Your task to perform on an android device: turn on priority inbox in the gmail app Image 0: 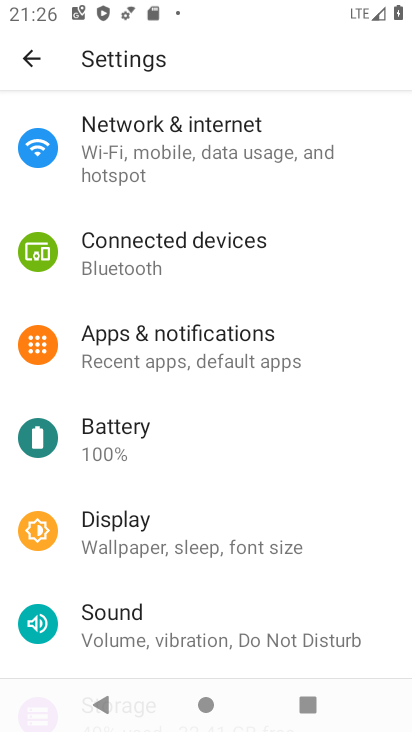
Step 0: press home button
Your task to perform on an android device: turn on priority inbox in the gmail app Image 1: 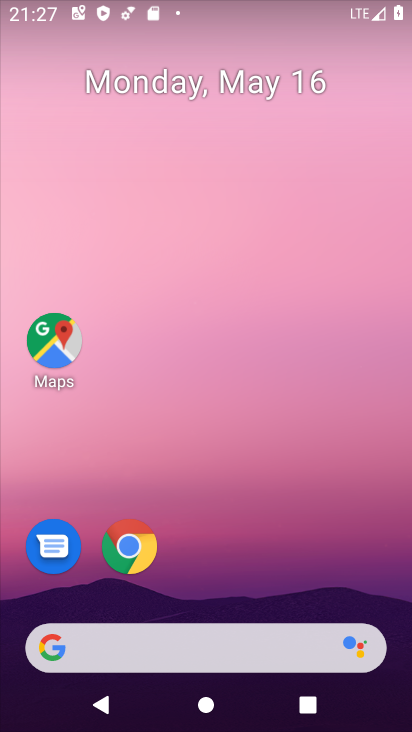
Step 1: drag from (251, 669) to (190, 8)
Your task to perform on an android device: turn on priority inbox in the gmail app Image 2: 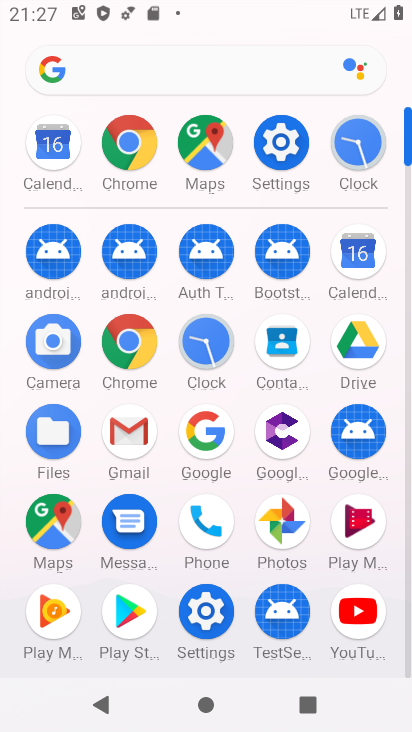
Step 2: click (140, 438)
Your task to perform on an android device: turn on priority inbox in the gmail app Image 3: 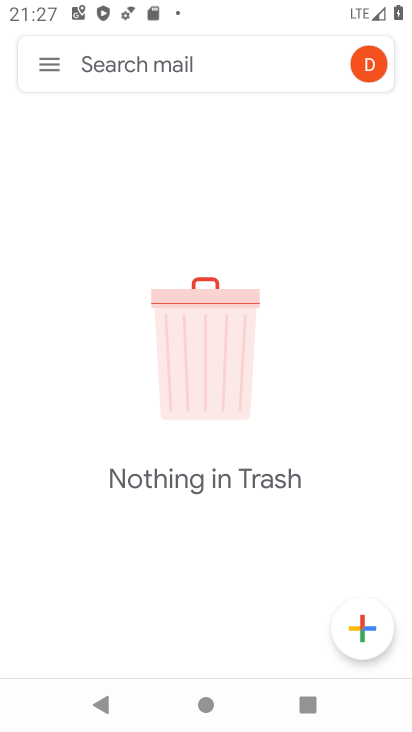
Step 3: click (54, 60)
Your task to perform on an android device: turn on priority inbox in the gmail app Image 4: 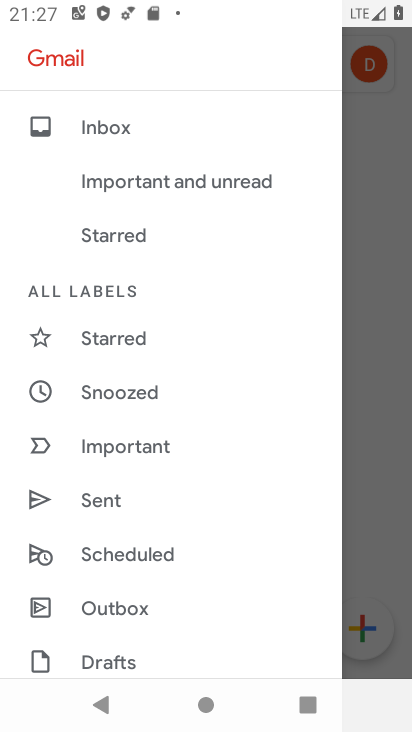
Step 4: drag from (165, 548) to (238, 408)
Your task to perform on an android device: turn on priority inbox in the gmail app Image 5: 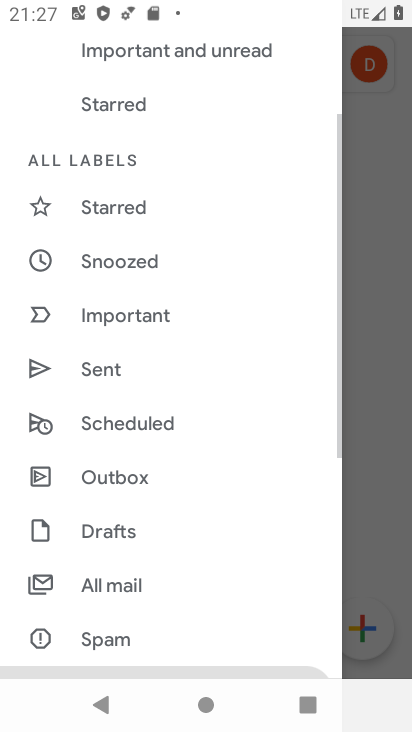
Step 5: drag from (181, 551) to (227, 438)
Your task to perform on an android device: turn on priority inbox in the gmail app Image 6: 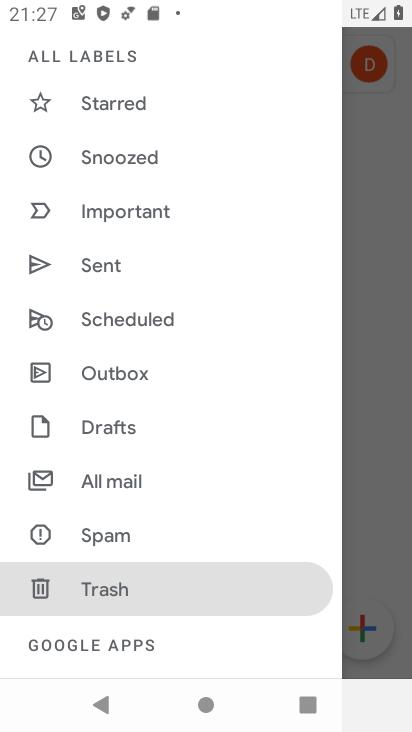
Step 6: drag from (177, 465) to (234, 321)
Your task to perform on an android device: turn on priority inbox in the gmail app Image 7: 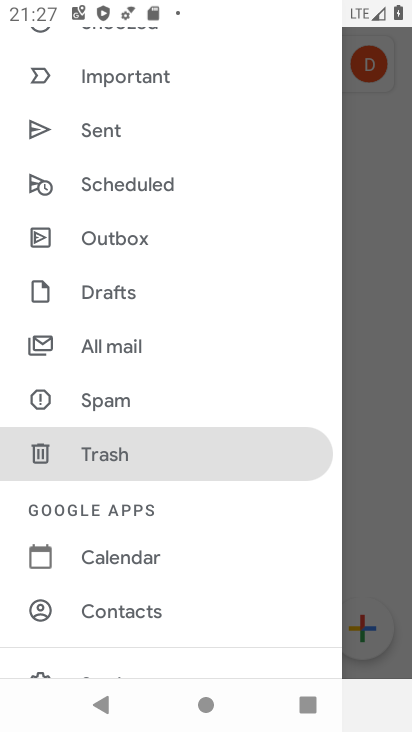
Step 7: drag from (127, 533) to (203, 365)
Your task to perform on an android device: turn on priority inbox in the gmail app Image 8: 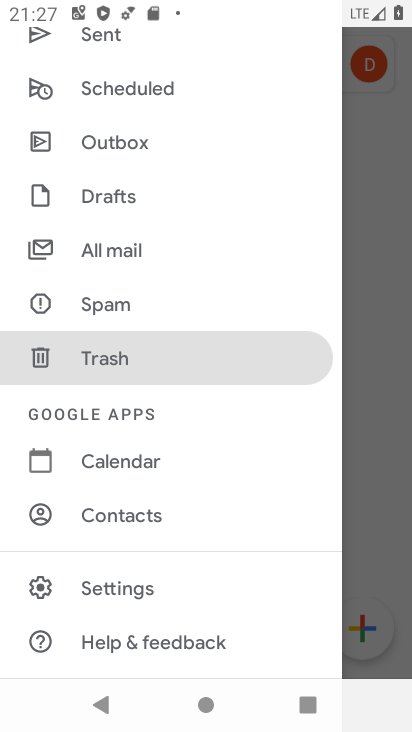
Step 8: click (161, 596)
Your task to perform on an android device: turn on priority inbox in the gmail app Image 9: 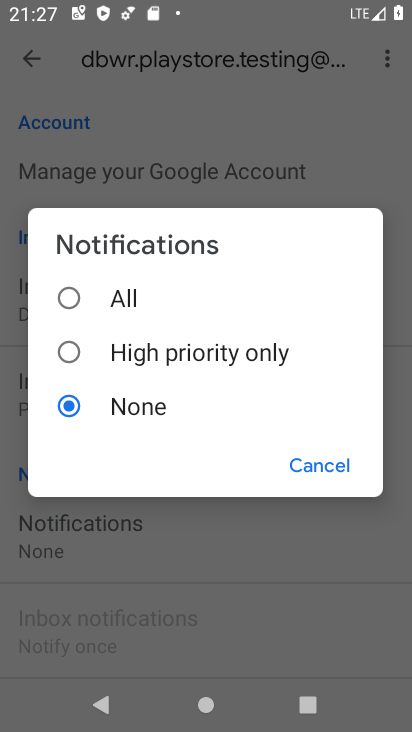
Step 9: click (327, 477)
Your task to perform on an android device: turn on priority inbox in the gmail app Image 10: 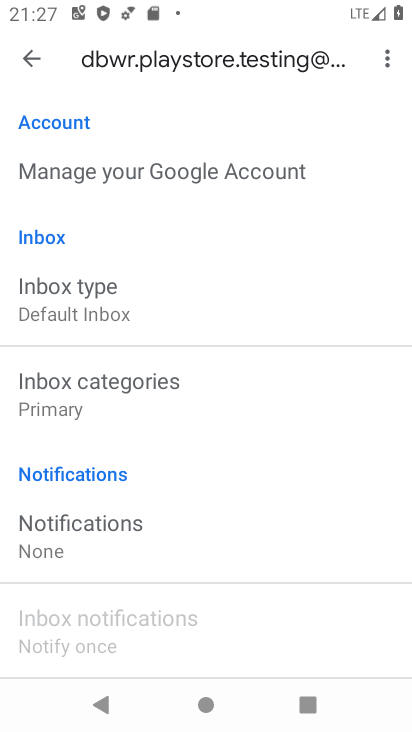
Step 10: click (117, 288)
Your task to perform on an android device: turn on priority inbox in the gmail app Image 11: 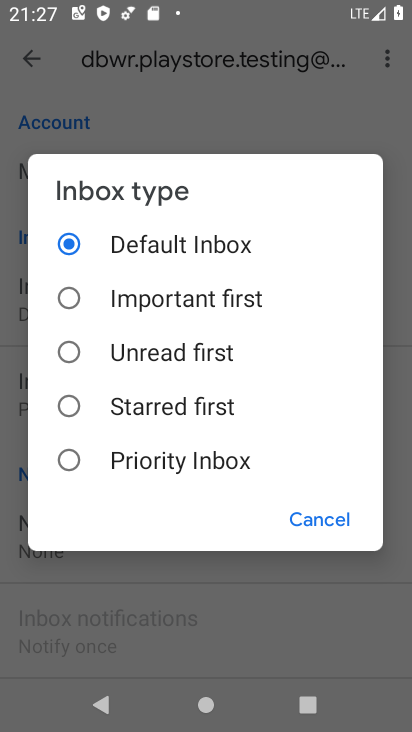
Step 11: click (145, 465)
Your task to perform on an android device: turn on priority inbox in the gmail app Image 12: 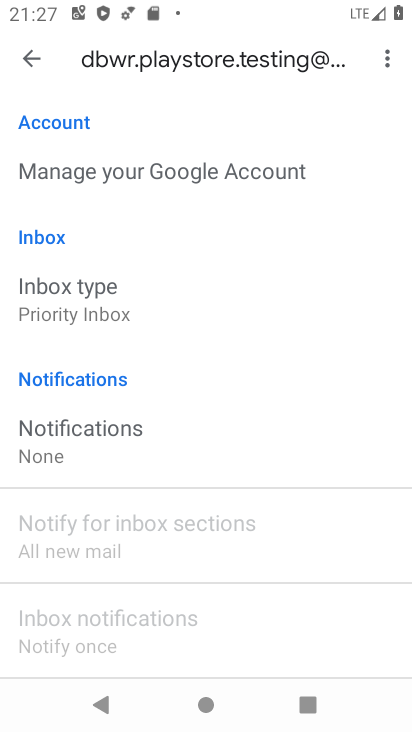
Step 12: task complete